Your task to perform on an android device: change the clock display to analog Image 0: 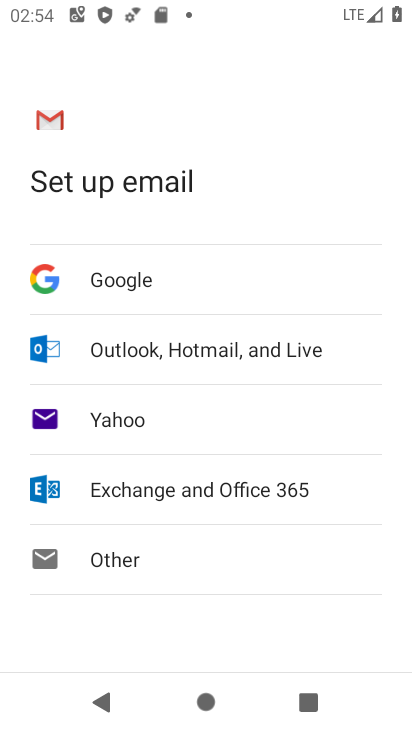
Step 0: press home button
Your task to perform on an android device: change the clock display to analog Image 1: 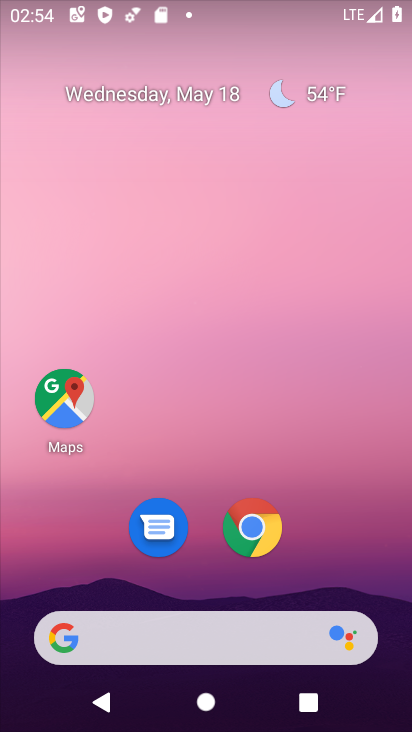
Step 1: drag from (239, 593) to (249, 7)
Your task to perform on an android device: change the clock display to analog Image 2: 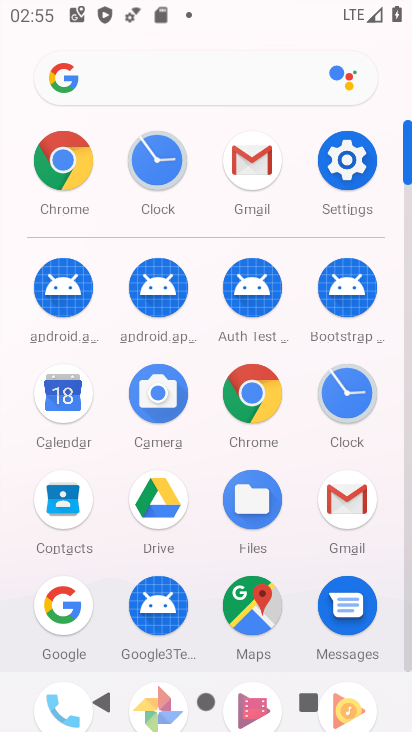
Step 2: click (321, 373)
Your task to perform on an android device: change the clock display to analog Image 3: 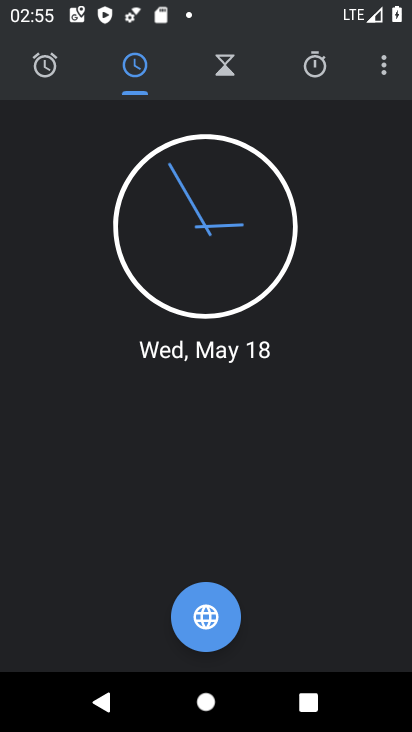
Step 3: click (385, 67)
Your task to perform on an android device: change the clock display to analog Image 4: 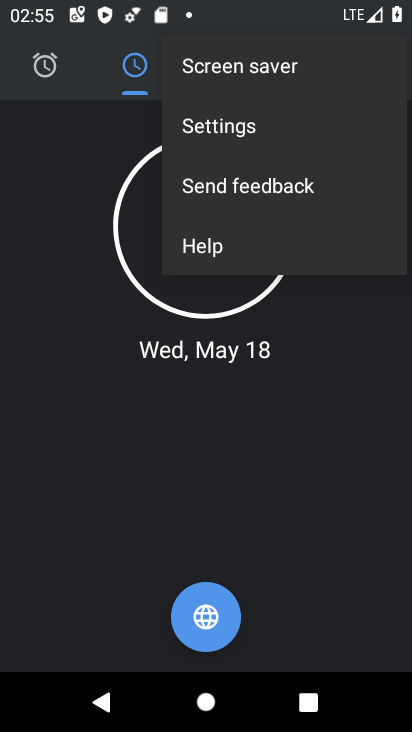
Step 4: click (219, 137)
Your task to perform on an android device: change the clock display to analog Image 5: 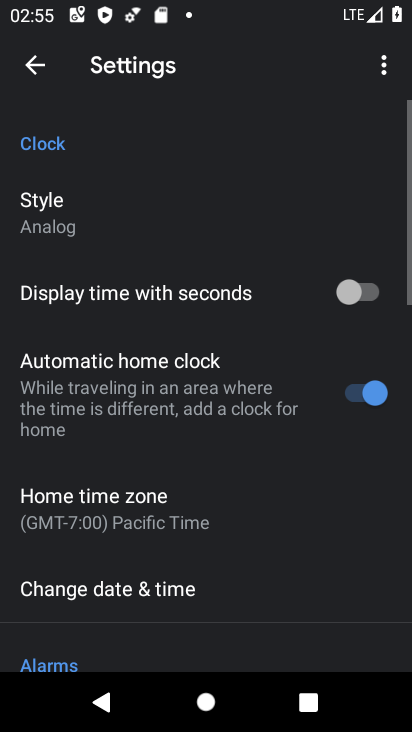
Step 5: click (139, 234)
Your task to perform on an android device: change the clock display to analog Image 6: 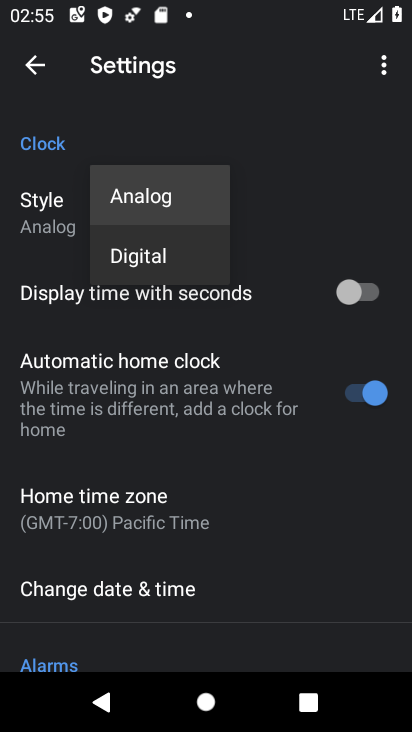
Step 6: click (159, 204)
Your task to perform on an android device: change the clock display to analog Image 7: 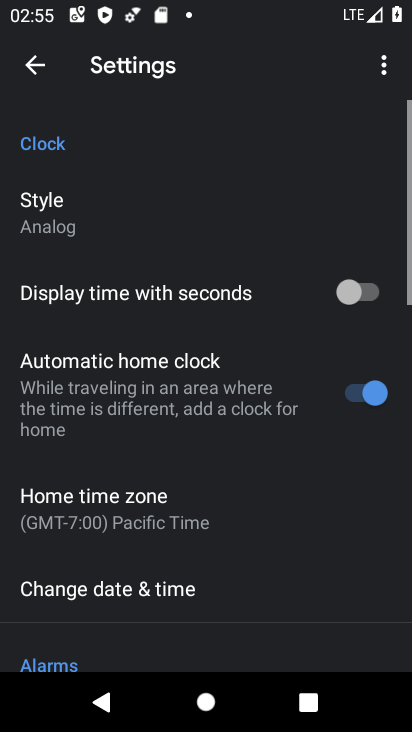
Step 7: task complete